Your task to perform on an android device: toggle javascript in the chrome app Image 0: 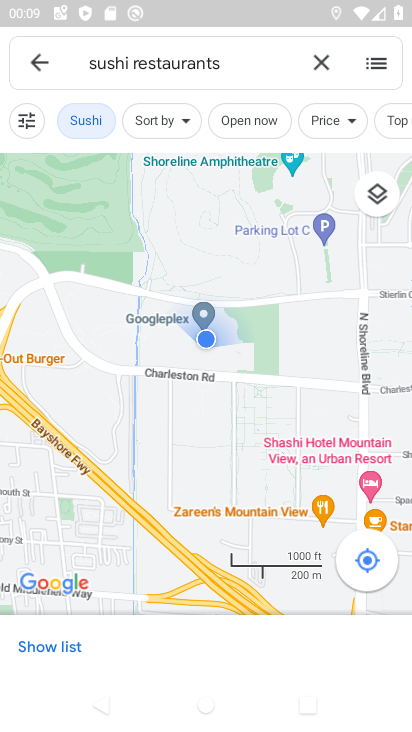
Step 0: press home button
Your task to perform on an android device: toggle javascript in the chrome app Image 1: 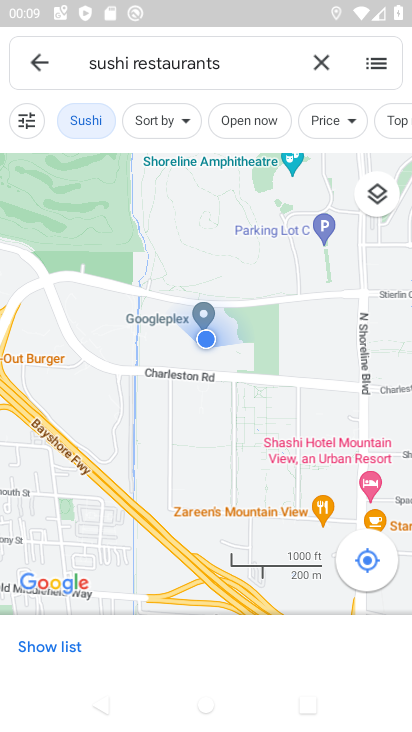
Step 1: drag from (207, 581) to (327, 12)
Your task to perform on an android device: toggle javascript in the chrome app Image 2: 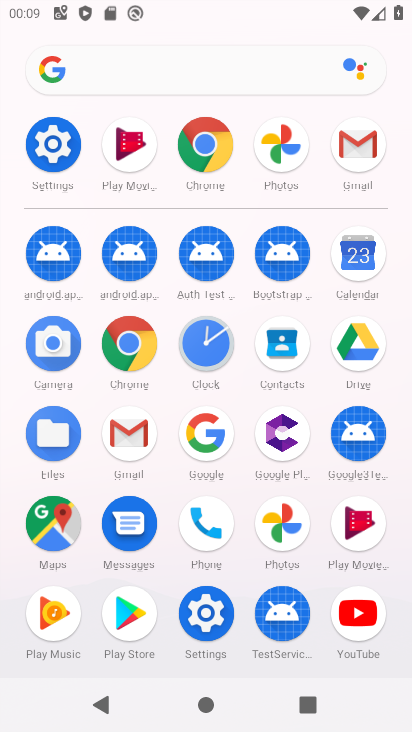
Step 2: click (208, 135)
Your task to perform on an android device: toggle javascript in the chrome app Image 3: 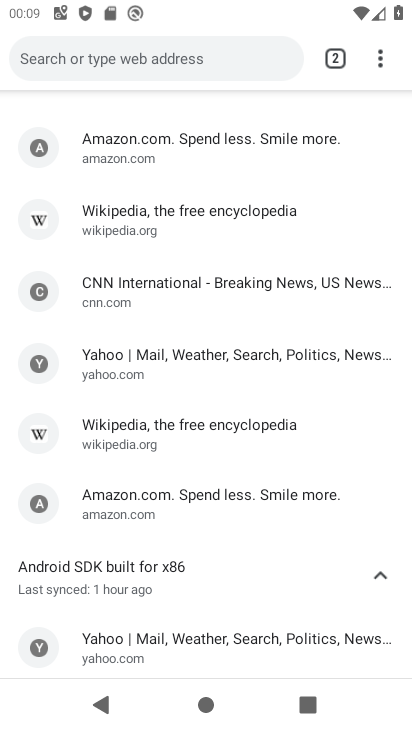
Step 3: drag from (201, 623) to (294, 89)
Your task to perform on an android device: toggle javascript in the chrome app Image 4: 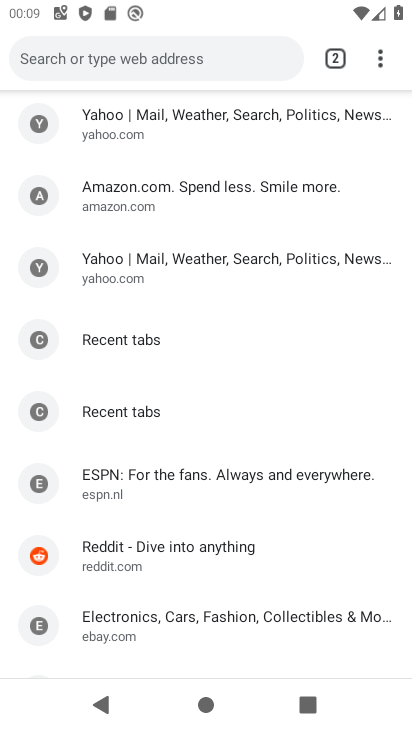
Step 4: drag from (243, 135) to (329, 580)
Your task to perform on an android device: toggle javascript in the chrome app Image 5: 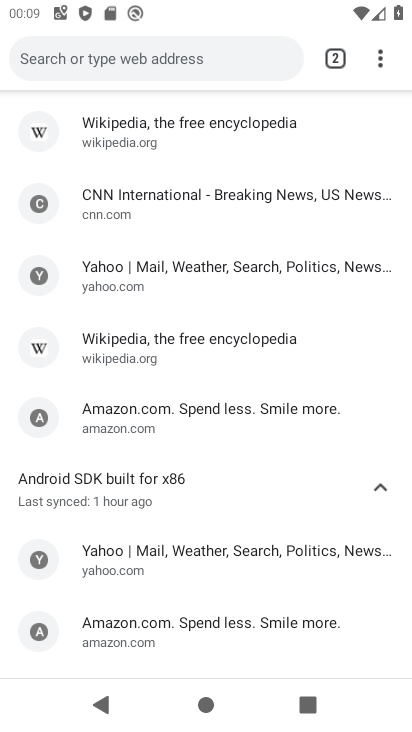
Step 5: drag from (245, 521) to (242, 206)
Your task to perform on an android device: toggle javascript in the chrome app Image 6: 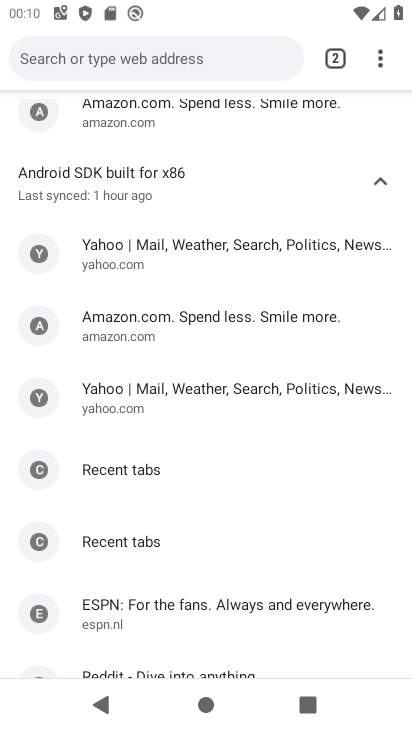
Step 6: drag from (203, 628) to (216, 181)
Your task to perform on an android device: toggle javascript in the chrome app Image 7: 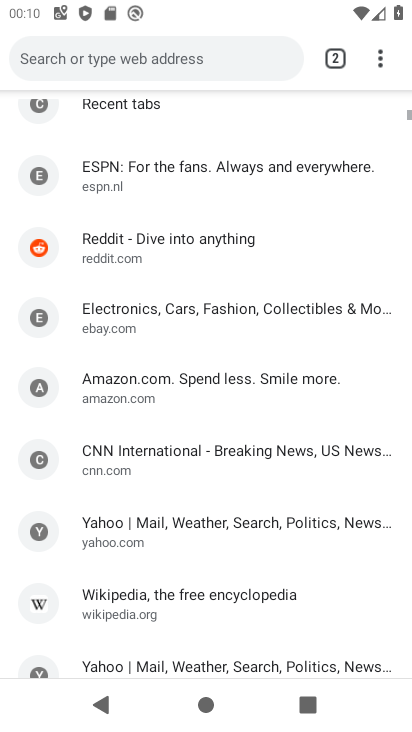
Step 7: drag from (220, 212) to (323, 723)
Your task to perform on an android device: toggle javascript in the chrome app Image 8: 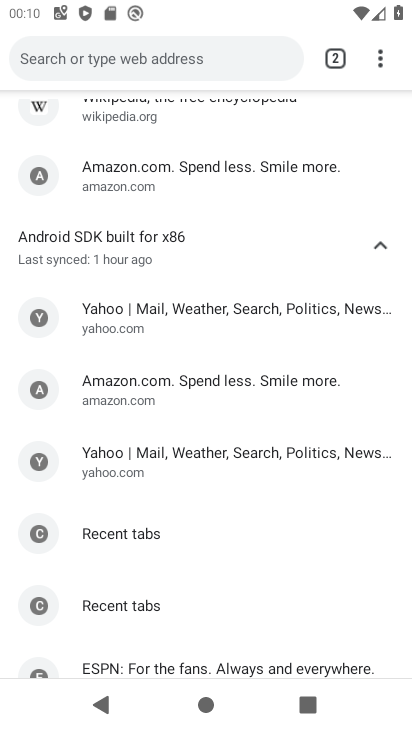
Step 8: click (375, 54)
Your task to perform on an android device: toggle javascript in the chrome app Image 9: 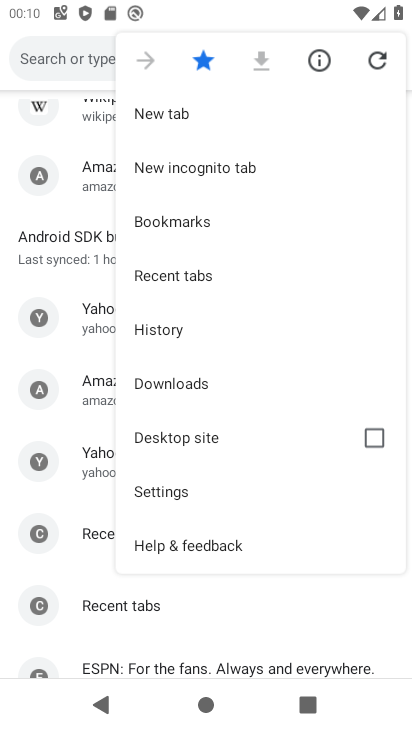
Step 9: drag from (205, 523) to (272, 125)
Your task to perform on an android device: toggle javascript in the chrome app Image 10: 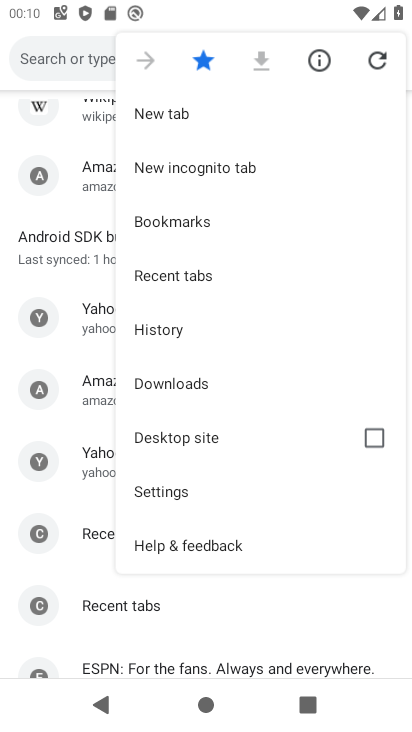
Step 10: click (190, 493)
Your task to perform on an android device: toggle javascript in the chrome app Image 11: 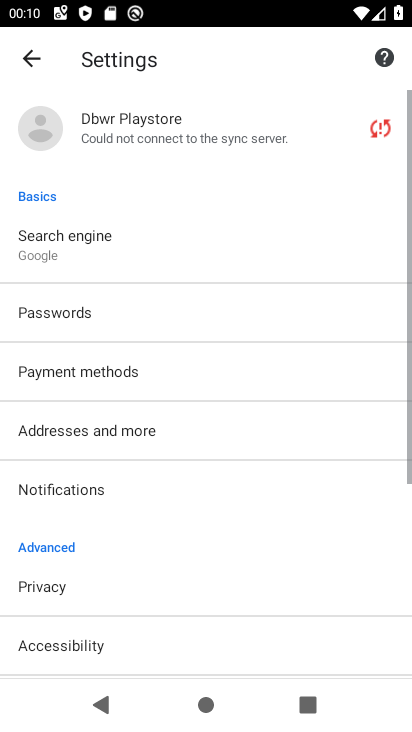
Step 11: drag from (243, 580) to (316, 187)
Your task to perform on an android device: toggle javascript in the chrome app Image 12: 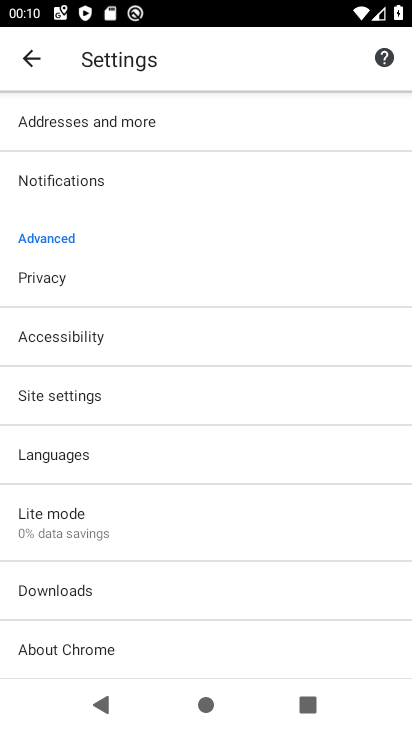
Step 12: drag from (180, 564) to (253, 163)
Your task to perform on an android device: toggle javascript in the chrome app Image 13: 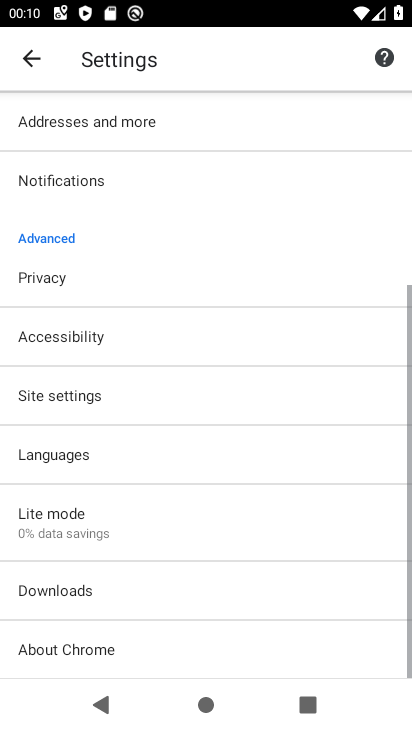
Step 13: click (161, 400)
Your task to perform on an android device: toggle javascript in the chrome app Image 14: 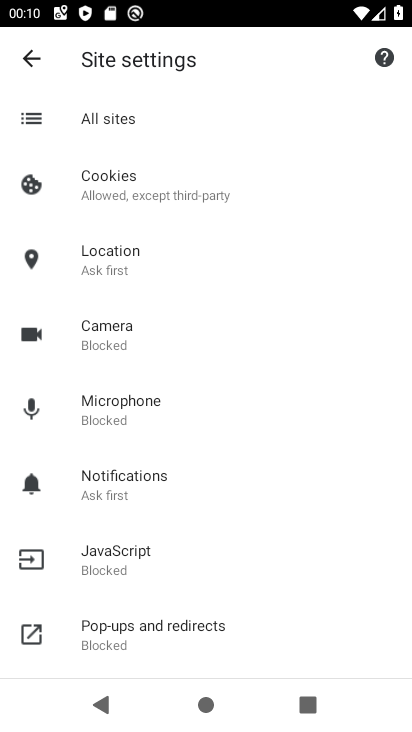
Step 14: click (115, 568)
Your task to perform on an android device: toggle javascript in the chrome app Image 15: 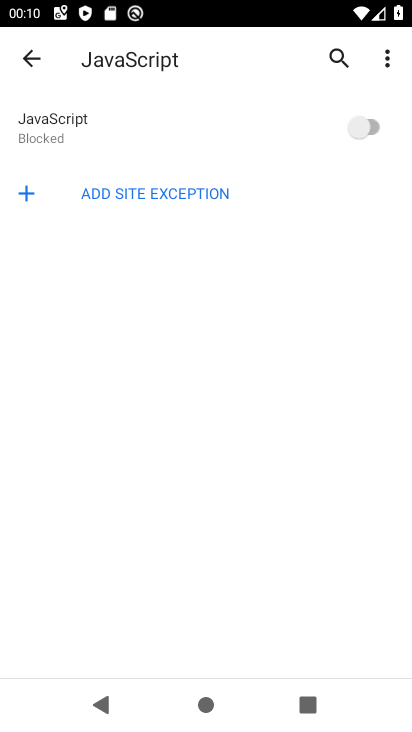
Step 15: click (357, 123)
Your task to perform on an android device: toggle javascript in the chrome app Image 16: 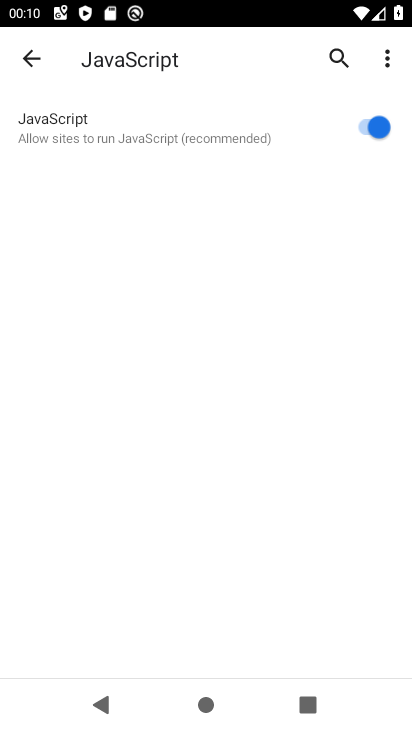
Step 16: task complete